Your task to perform on an android device: check google app version Image 0: 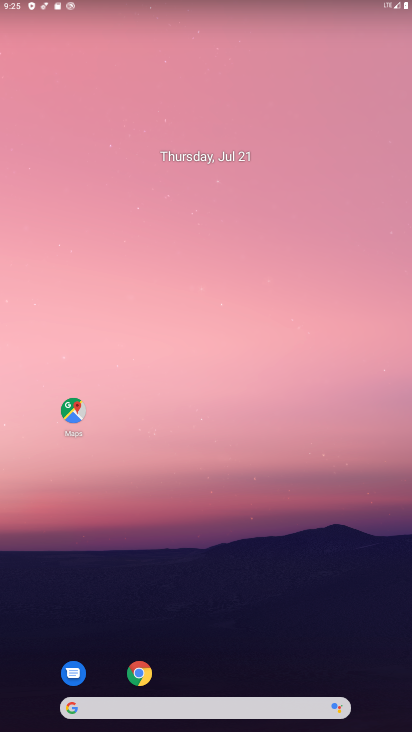
Step 0: drag from (216, 620) to (179, 1)
Your task to perform on an android device: check google app version Image 1: 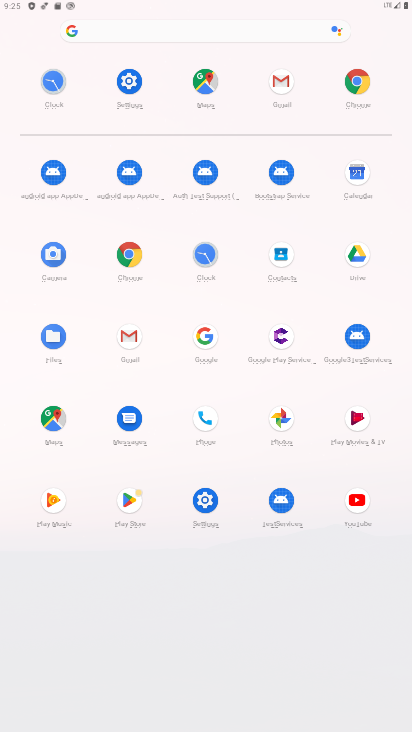
Step 1: click (202, 333)
Your task to perform on an android device: check google app version Image 2: 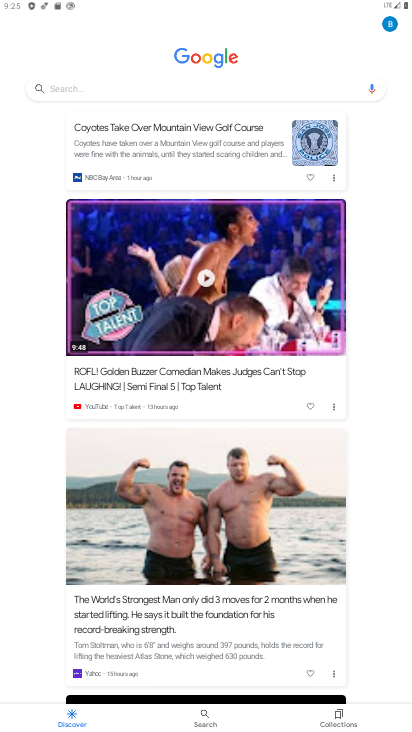
Step 2: click (387, 23)
Your task to perform on an android device: check google app version Image 3: 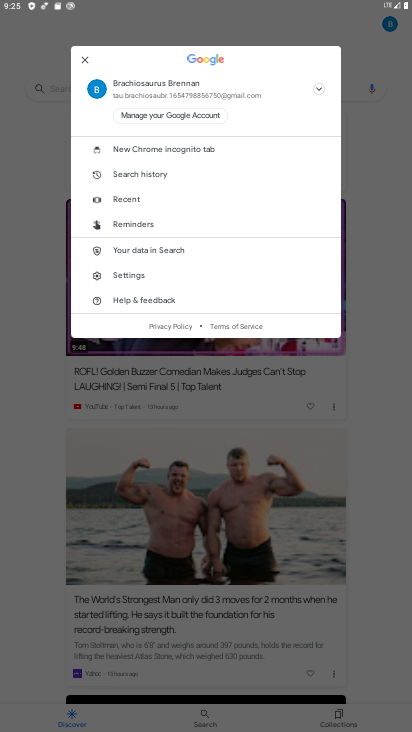
Step 3: click (132, 274)
Your task to perform on an android device: check google app version Image 4: 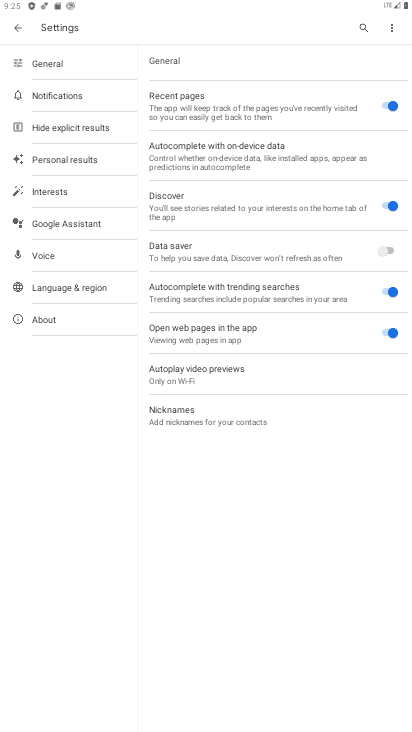
Step 4: click (64, 313)
Your task to perform on an android device: check google app version Image 5: 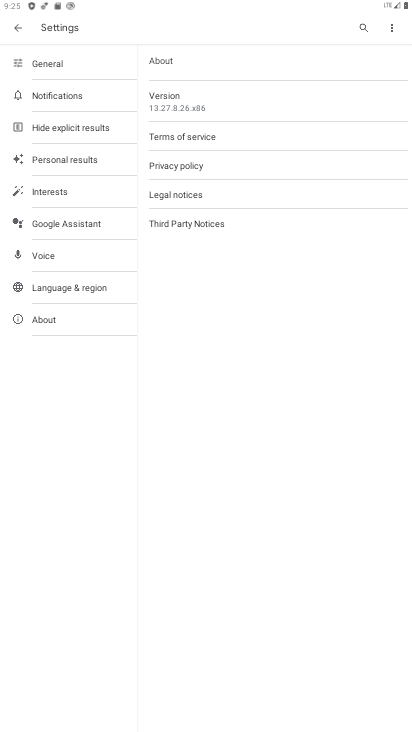
Step 5: click (172, 95)
Your task to perform on an android device: check google app version Image 6: 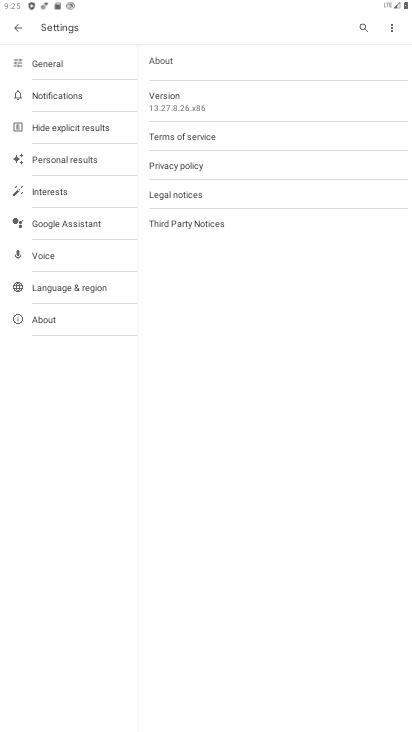
Step 6: click (237, 98)
Your task to perform on an android device: check google app version Image 7: 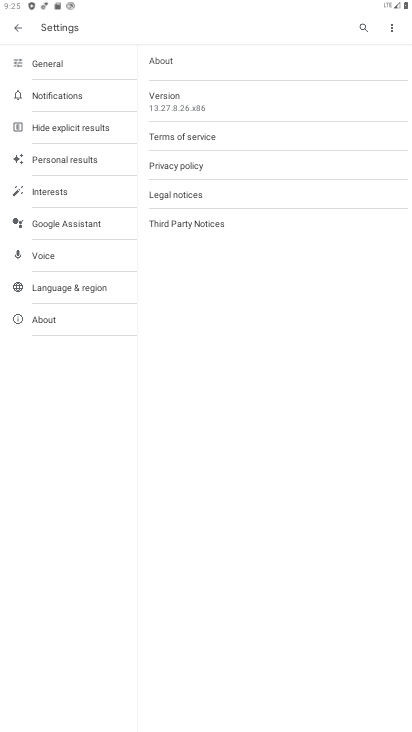
Step 7: click (215, 107)
Your task to perform on an android device: check google app version Image 8: 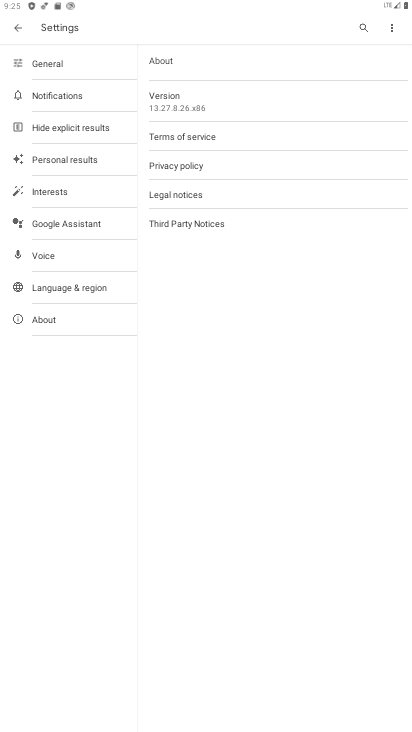
Step 8: task complete